Your task to perform on an android device: Open calendar and show me the third week of next month Image 0: 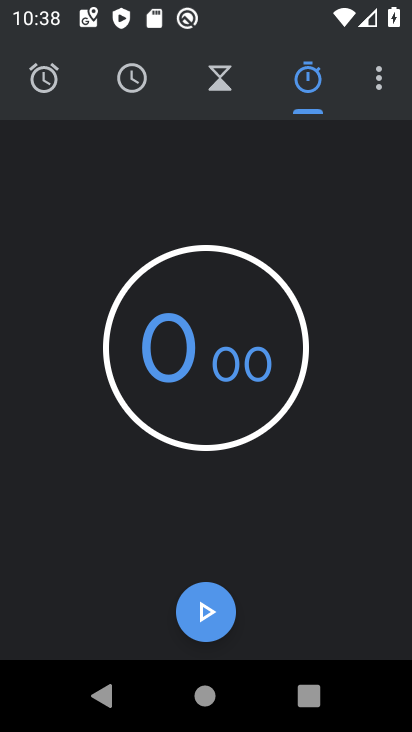
Step 0: press home button
Your task to perform on an android device: Open calendar and show me the third week of next month Image 1: 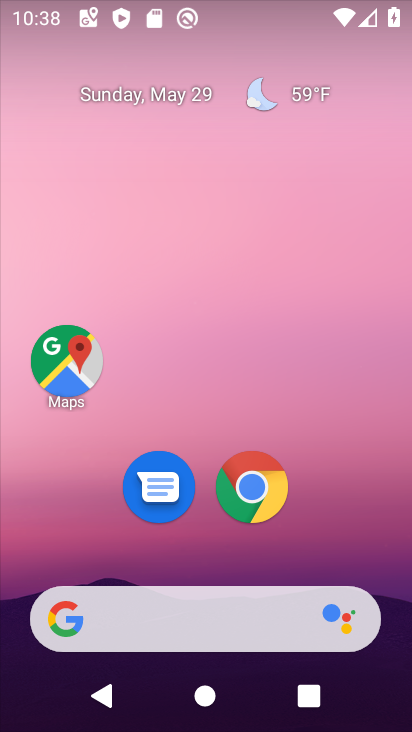
Step 1: drag from (383, 698) to (331, 143)
Your task to perform on an android device: Open calendar and show me the third week of next month Image 2: 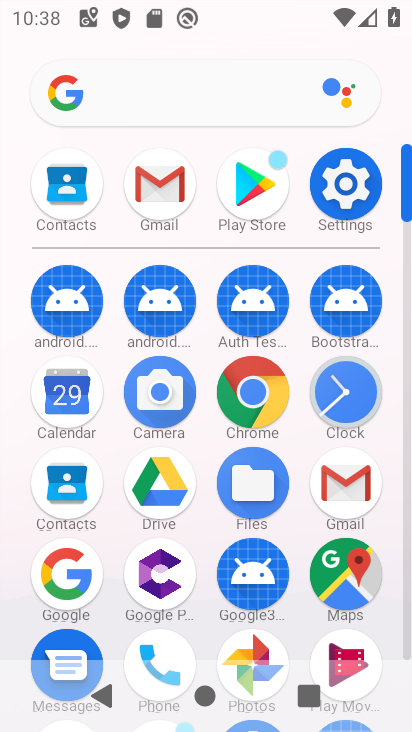
Step 2: click (359, 186)
Your task to perform on an android device: Open calendar and show me the third week of next month Image 3: 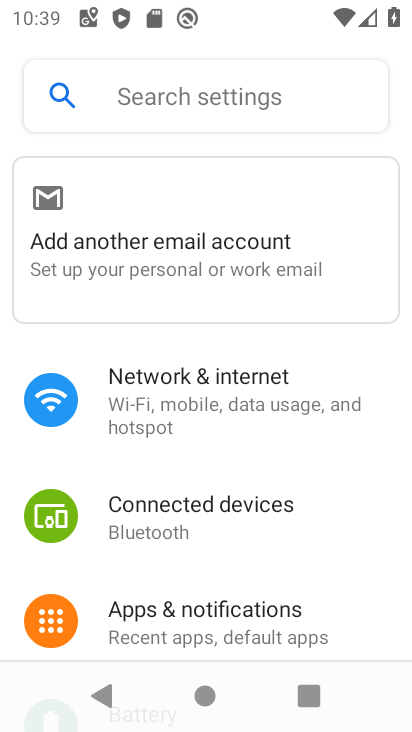
Step 3: drag from (369, 626) to (331, 306)
Your task to perform on an android device: Open calendar and show me the third week of next month Image 4: 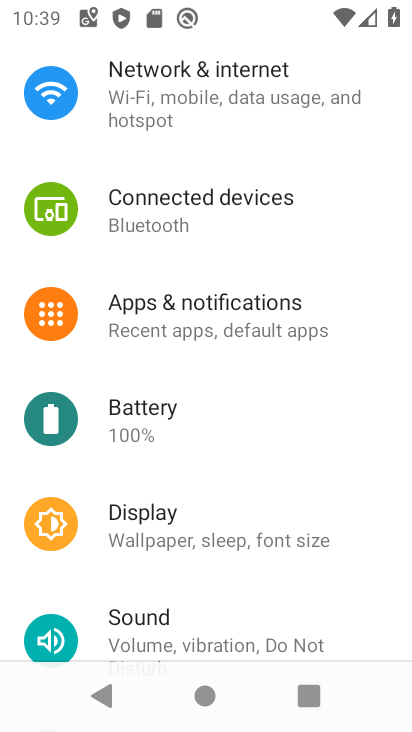
Step 4: press back button
Your task to perform on an android device: Open calendar and show me the third week of next month Image 5: 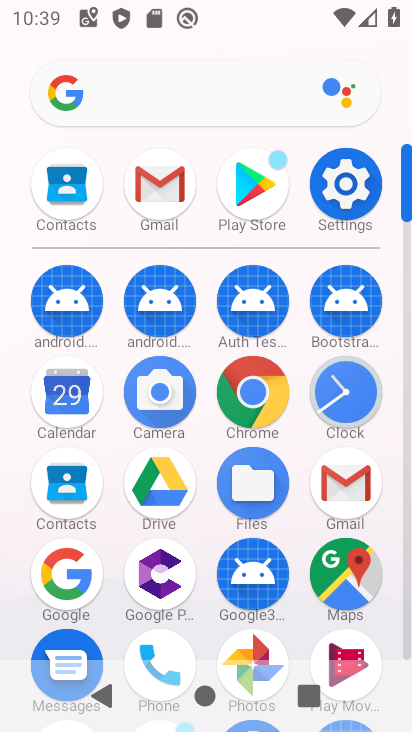
Step 5: click (81, 394)
Your task to perform on an android device: Open calendar and show me the third week of next month Image 6: 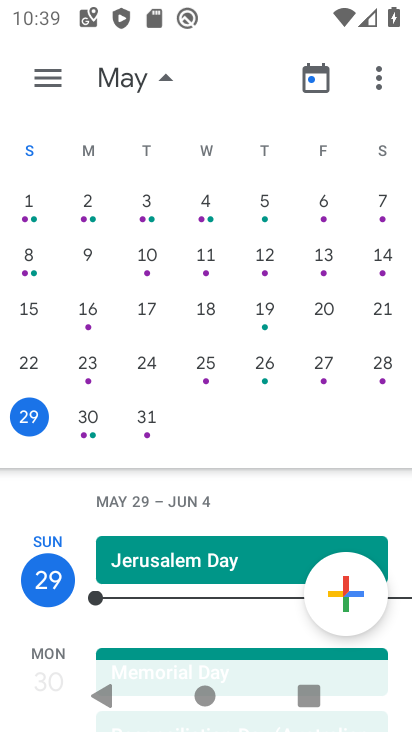
Step 6: drag from (393, 239) to (120, 209)
Your task to perform on an android device: Open calendar and show me the third week of next month Image 7: 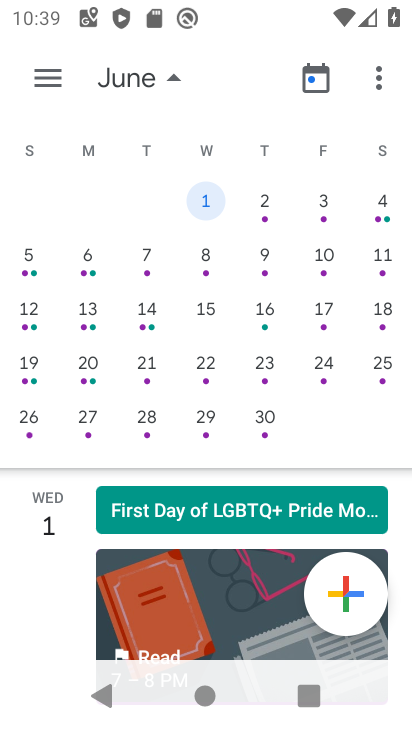
Step 7: click (196, 307)
Your task to perform on an android device: Open calendar and show me the third week of next month Image 8: 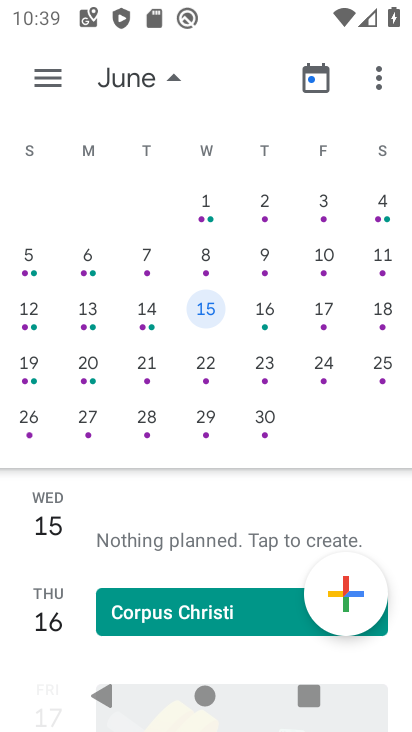
Step 8: click (51, 74)
Your task to perform on an android device: Open calendar and show me the third week of next month Image 9: 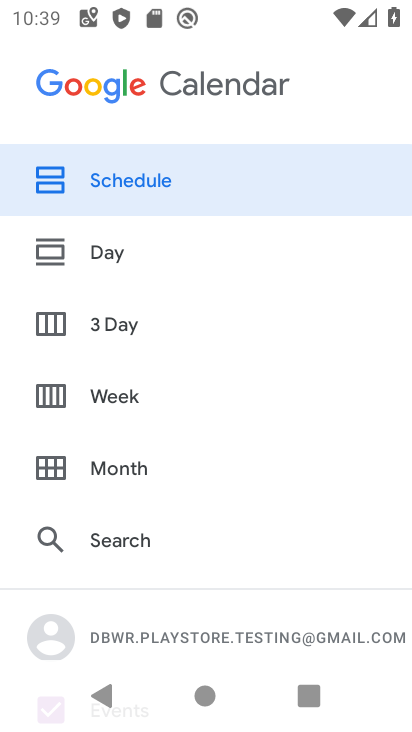
Step 9: click (125, 395)
Your task to perform on an android device: Open calendar and show me the third week of next month Image 10: 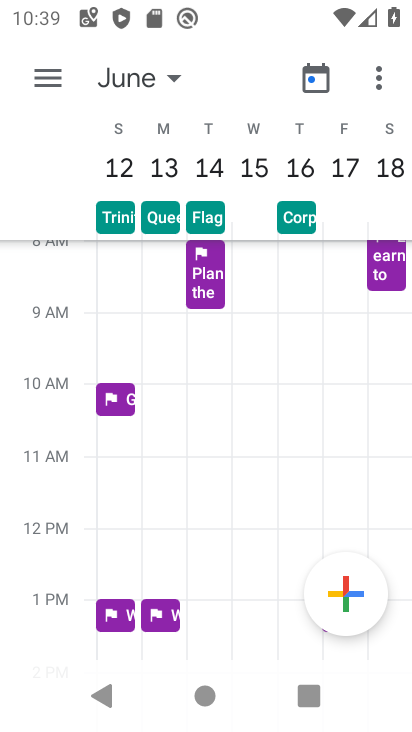
Step 10: task complete